Your task to perform on an android device: turn on improve location accuracy Image 0: 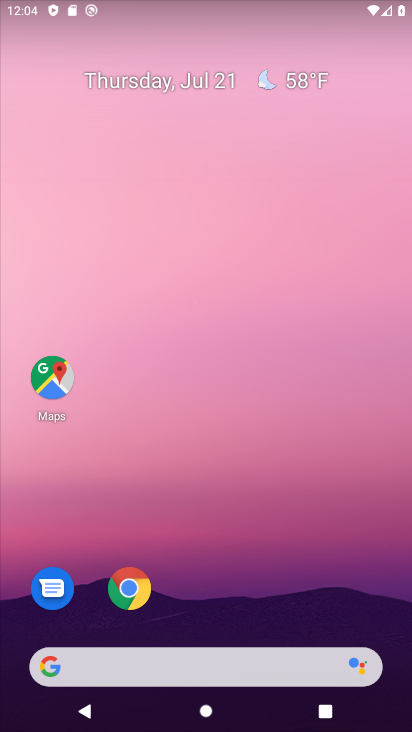
Step 0: drag from (264, 576) to (257, 174)
Your task to perform on an android device: turn on improve location accuracy Image 1: 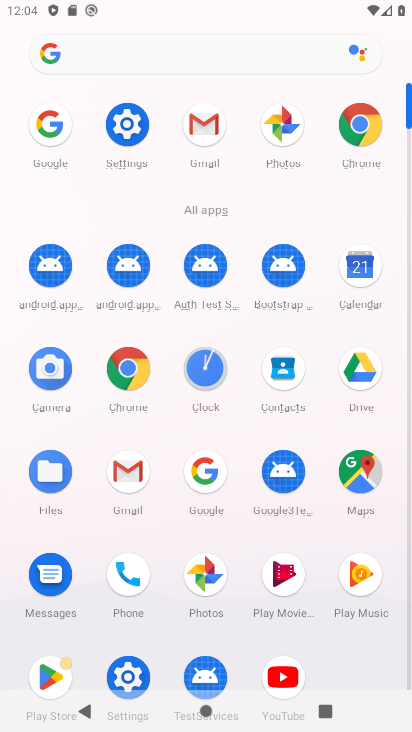
Step 1: click (126, 138)
Your task to perform on an android device: turn on improve location accuracy Image 2: 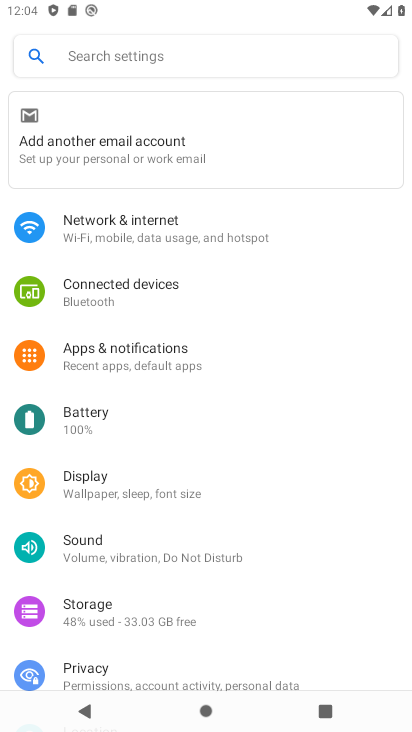
Step 2: drag from (118, 600) to (108, 388)
Your task to perform on an android device: turn on improve location accuracy Image 3: 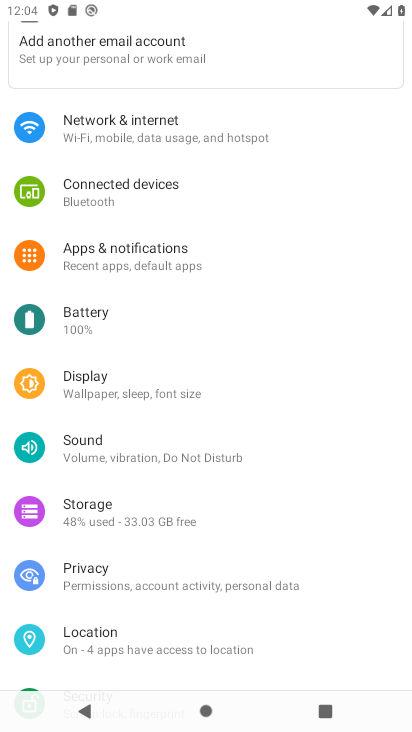
Step 3: click (116, 637)
Your task to perform on an android device: turn on improve location accuracy Image 4: 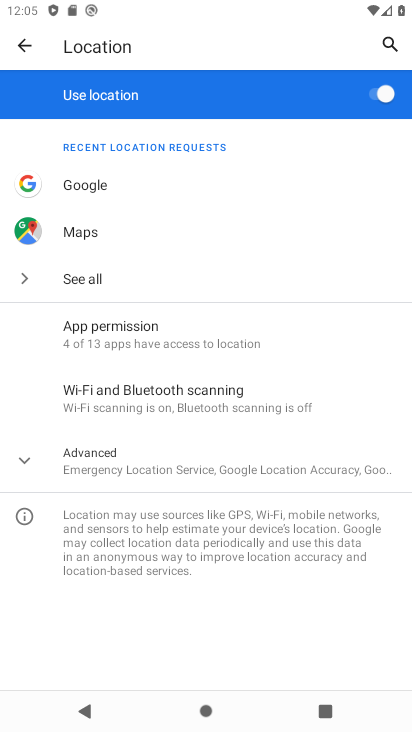
Step 4: click (238, 463)
Your task to perform on an android device: turn on improve location accuracy Image 5: 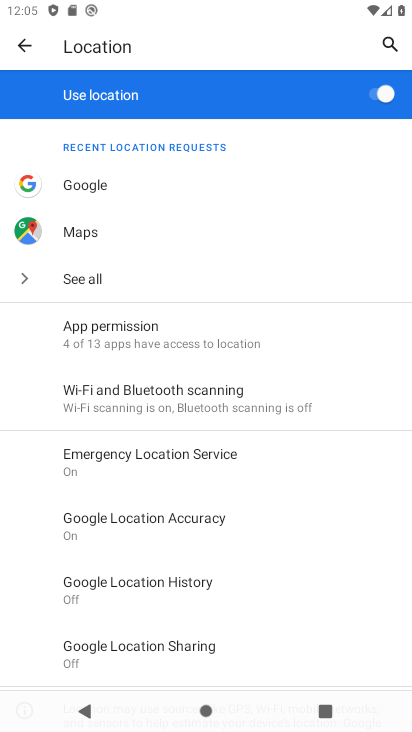
Step 5: click (167, 535)
Your task to perform on an android device: turn on improve location accuracy Image 6: 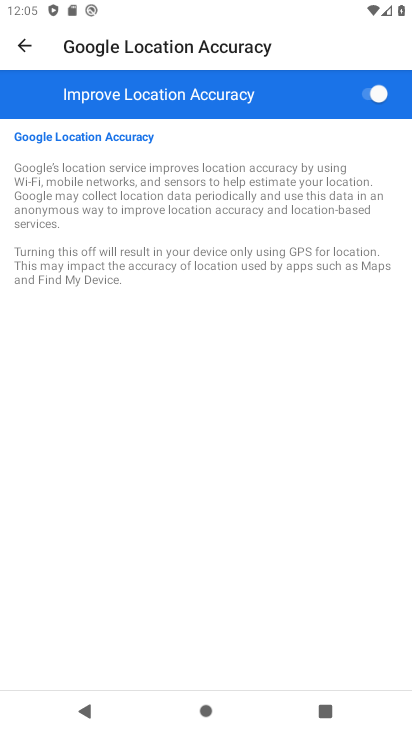
Step 6: task complete